Your task to perform on an android device: check data usage Image 0: 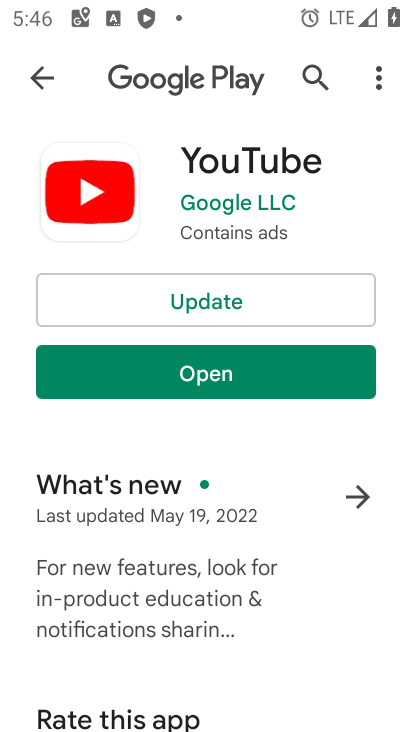
Step 0: press home button
Your task to perform on an android device: check data usage Image 1: 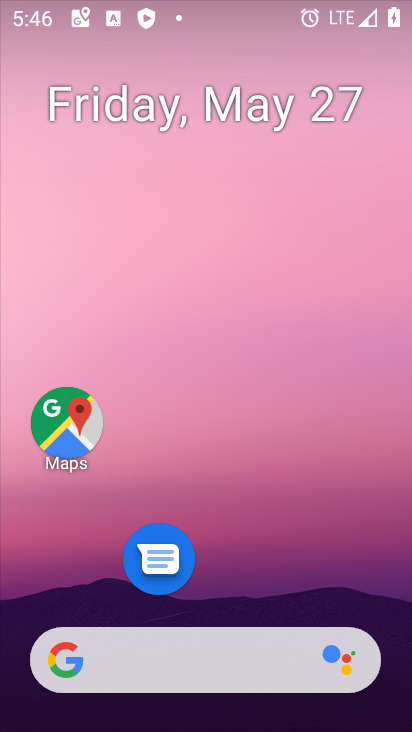
Step 1: drag from (264, 682) to (302, 112)
Your task to perform on an android device: check data usage Image 2: 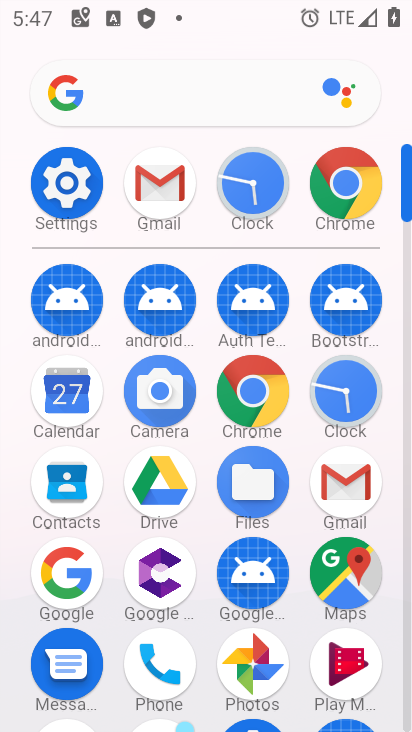
Step 2: click (89, 180)
Your task to perform on an android device: check data usage Image 3: 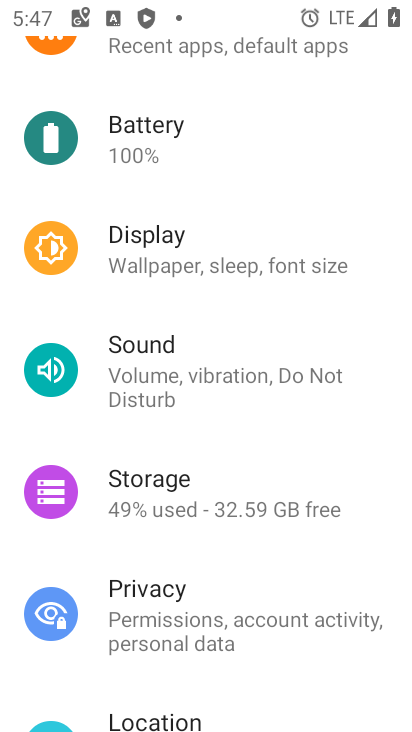
Step 3: drag from (257, 135) to (256, 715)
Your task to perform on an android device: check data usage Image 4: 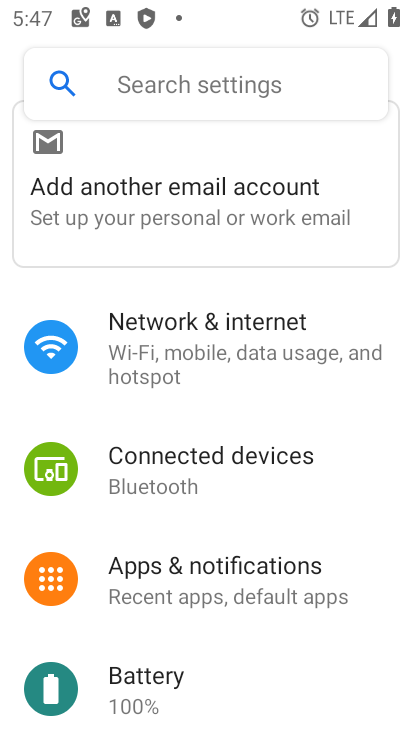
Step 4: click (294, 352)
Your task to perform on an android device: check data usage Image 5: 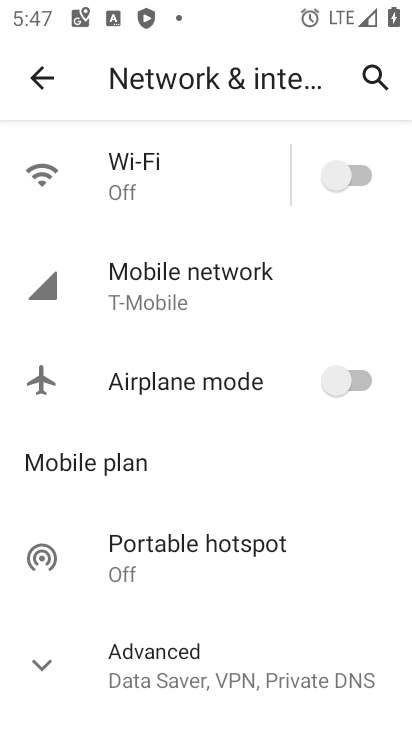
Step 5: click (247, 297)
Your task to perform on an android device: check data usage Image 6: 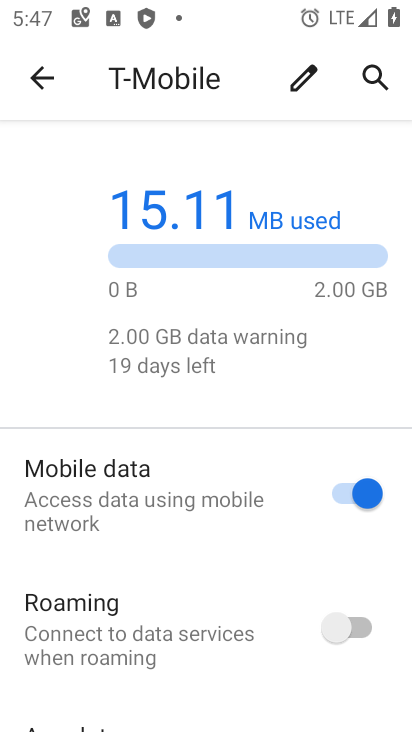
Step 6: task complete